Your task to perform on an android device: What's on my calendar tomorrow? Image 0: 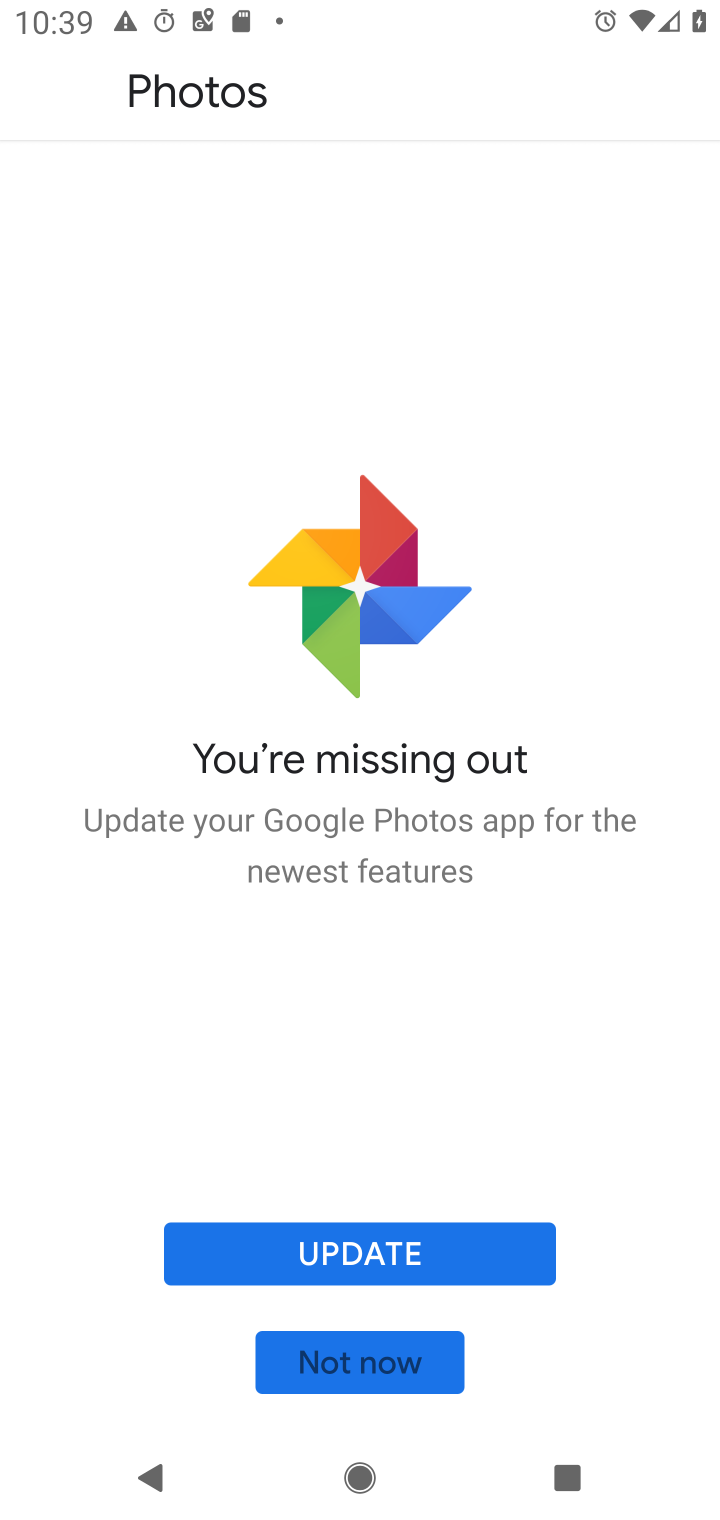
Step 0: press home button
Your task to perform on an android device: What's on my calendar tomorrow? Image 1: 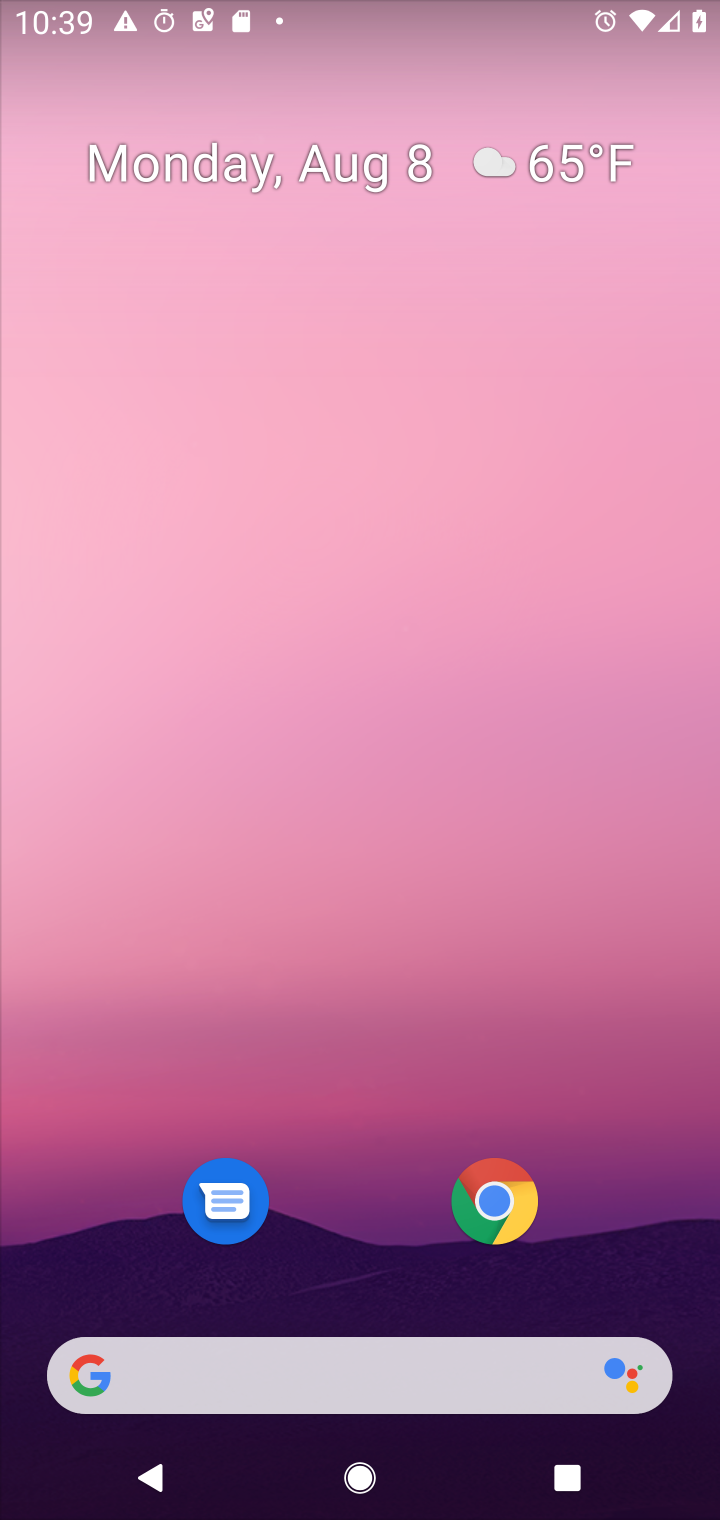
Step 1: drag from (394, 1000) to (429, 351)
Your task to perform on an android device: What's on my calendar tomorrow? Image 2: 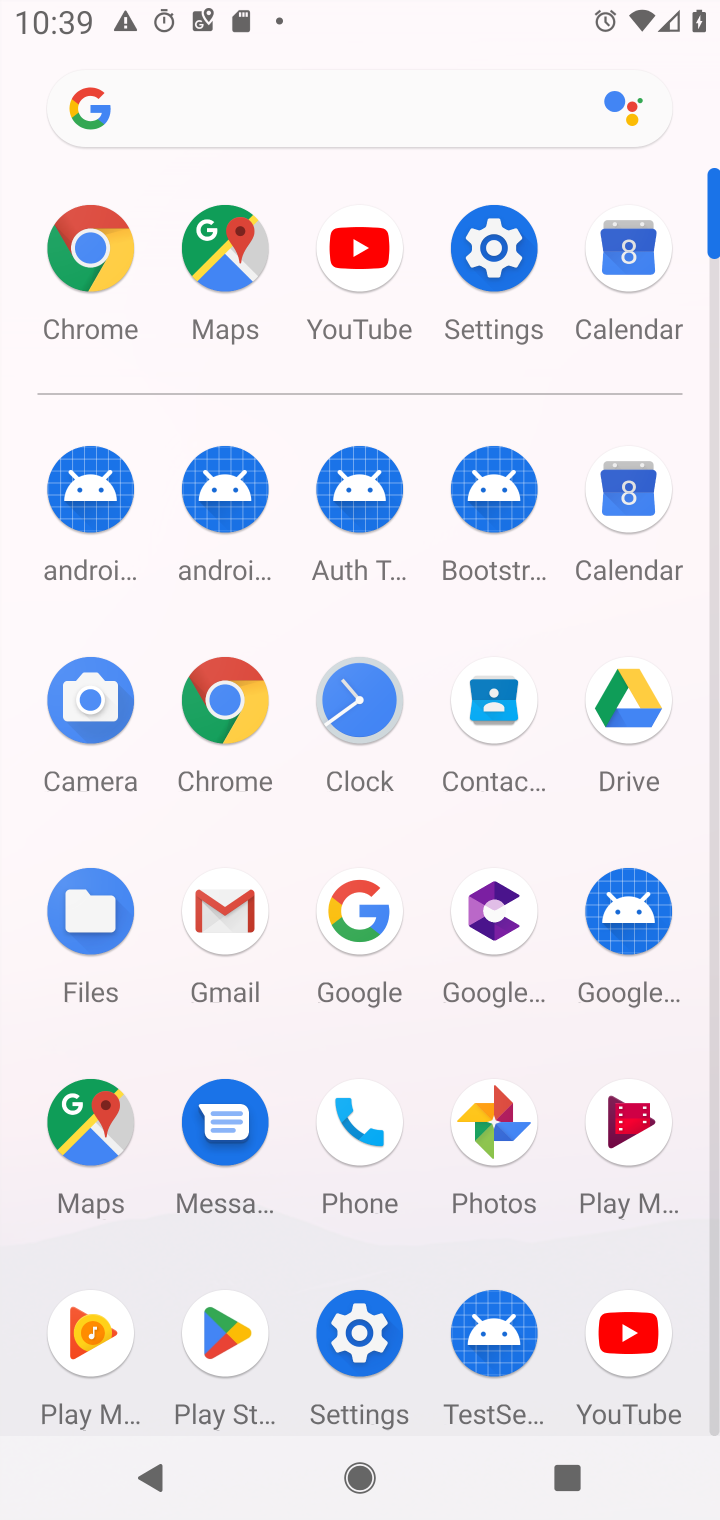
Step 2: click (632, 481)
Your task to perform on an android device: What's on my calendar tomorrow? Image 3: 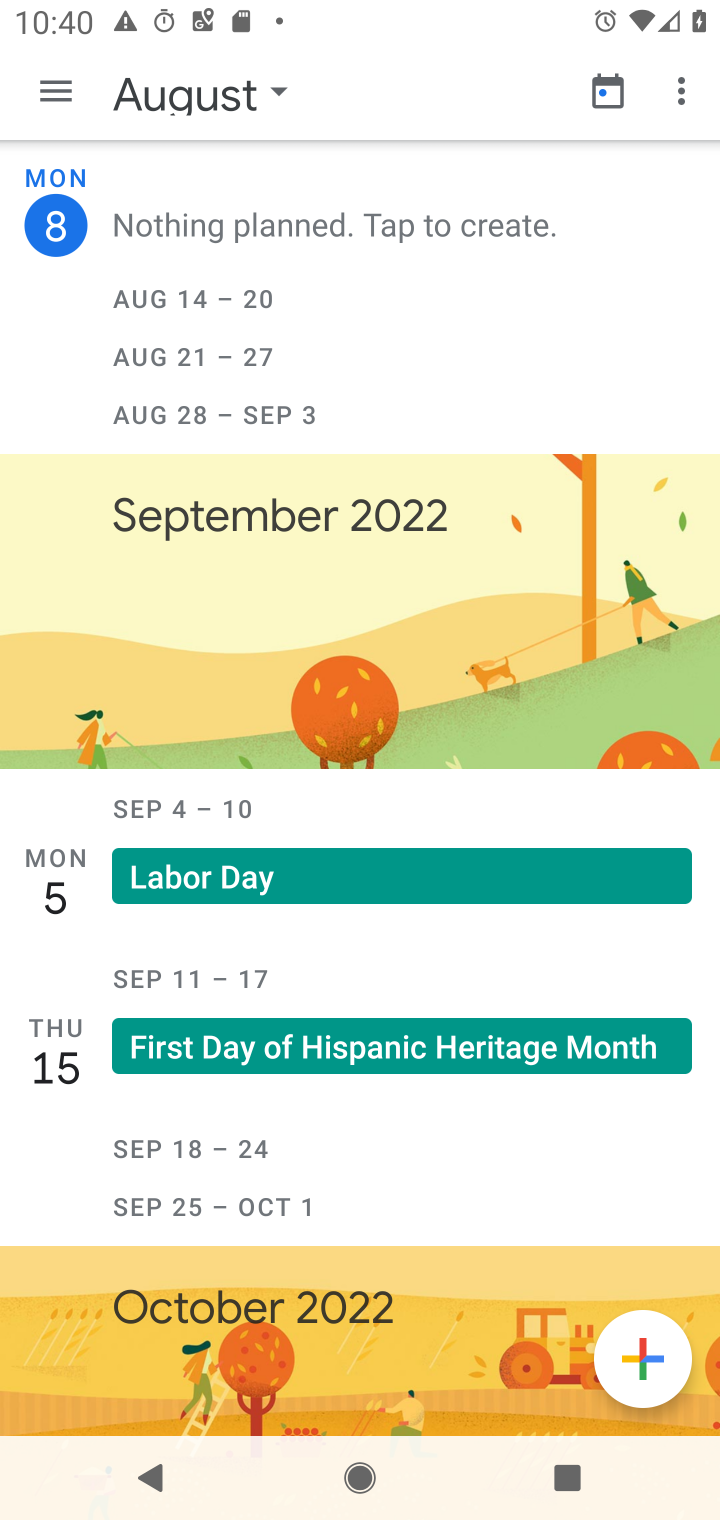
Step 3: click (276, 86)
Your task to perform on an android device: What's on my calendar tomorrow? Image 4: 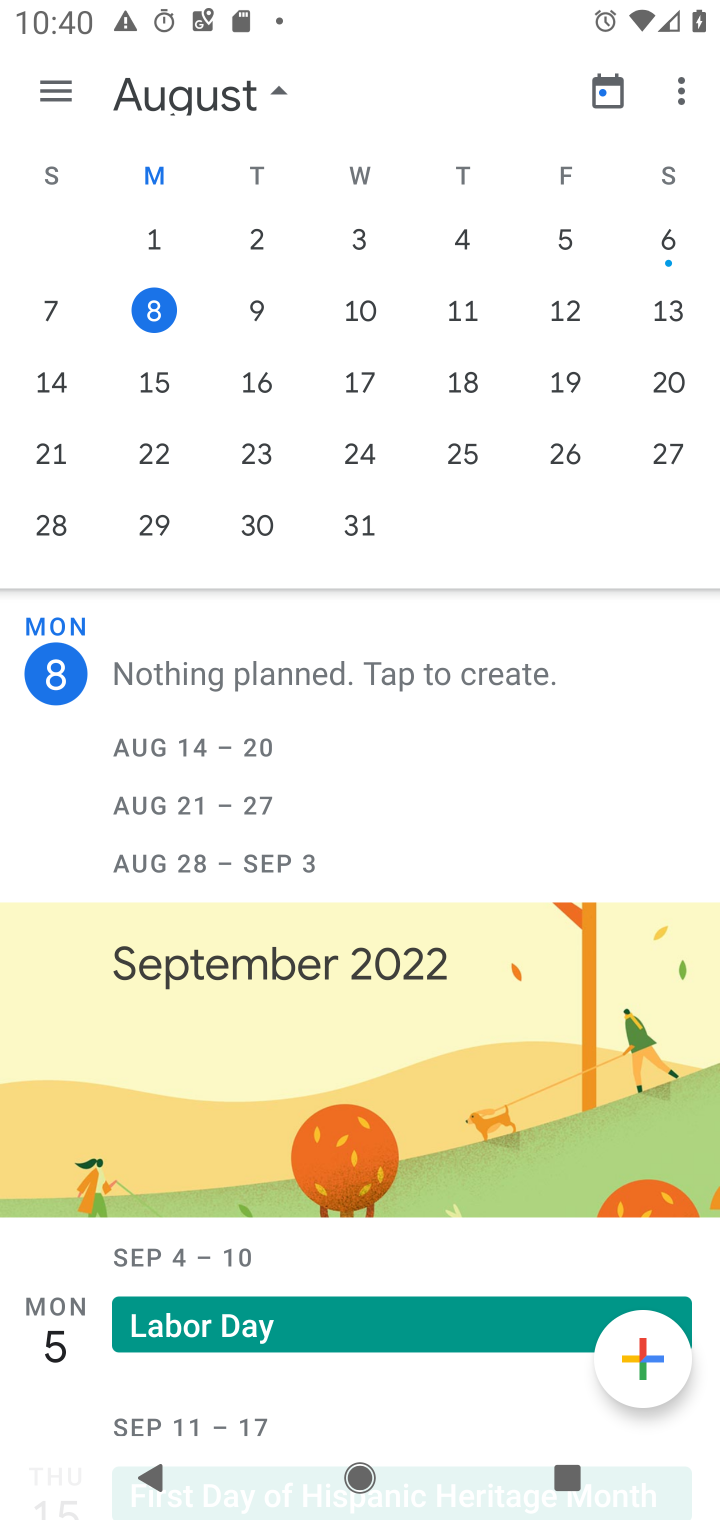
Step 4: click (365, 300)
Your task to perform on an android device: What's on my calendar tomorrow? Image 5: 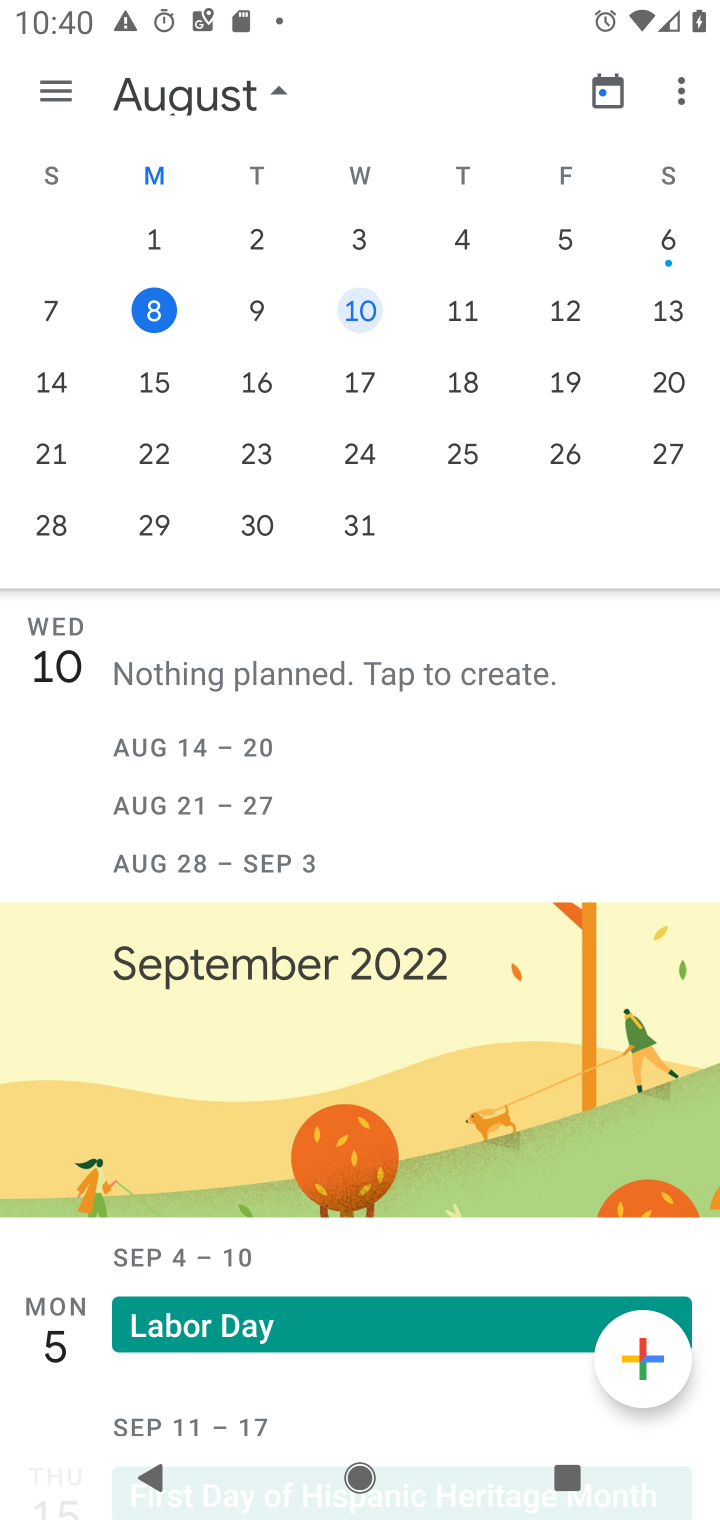
Step 5: task complete